Your task to perform on an android device: turn on wifi Image 0: 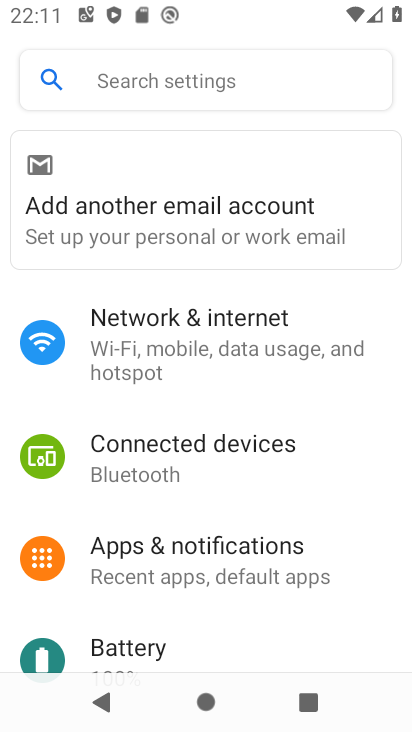
Step 0: click (168, 319)
Your task to perform on an android device: turn on wifi Image 1: 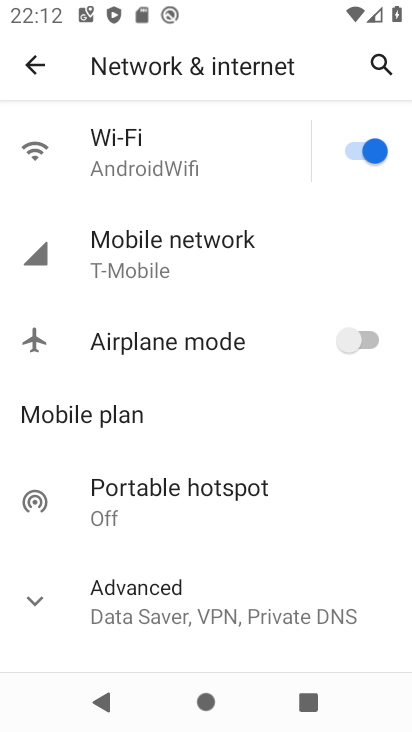
Step 1: task complete